Your task to perform on an android device: turn on translation in the chrome app Image 0: 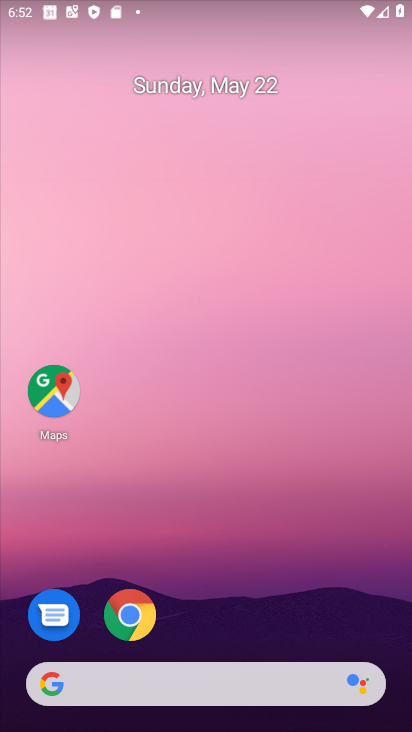
Step 0: click (129, 612)
Your task to perform on an android device: turn on translation in the chrome app Image 1: 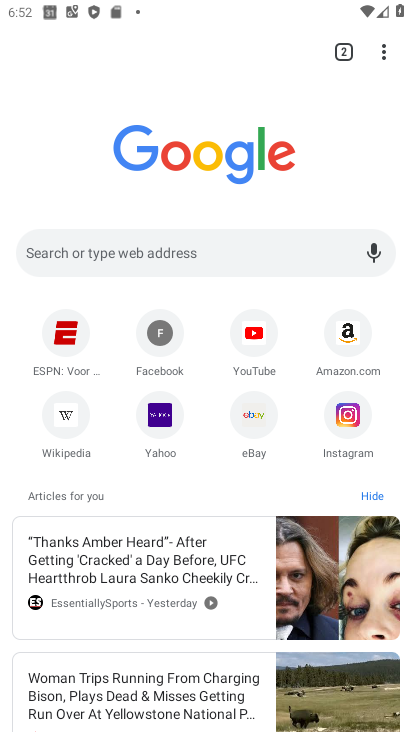
Step 1: click (382, 42)
Your task to perform on an android device: turn on translation in the chrome app Image 2: 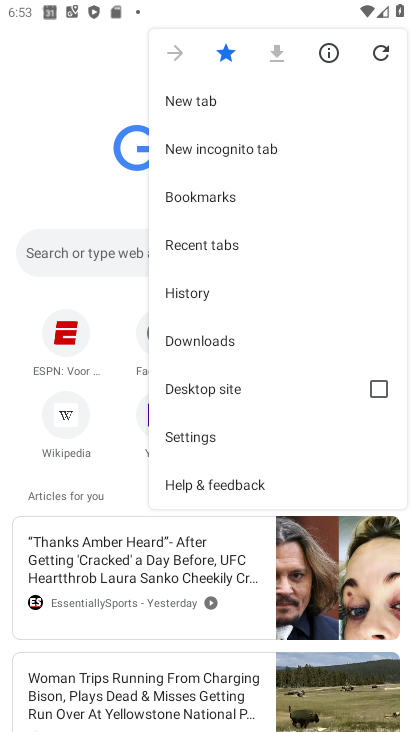
Step 2: click (202, 434)
Your task to perform on an android device: turn on translation in the chrome app Image 3: 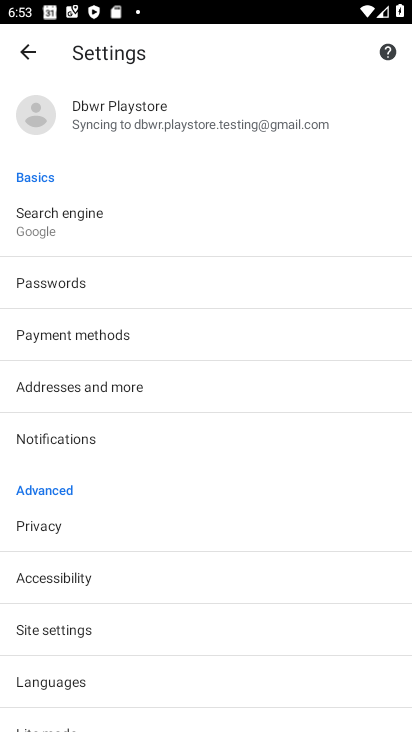
Step 3: click (53, 680)
Your task to perform on an android device: turn on translation in the chrome app Image 4: 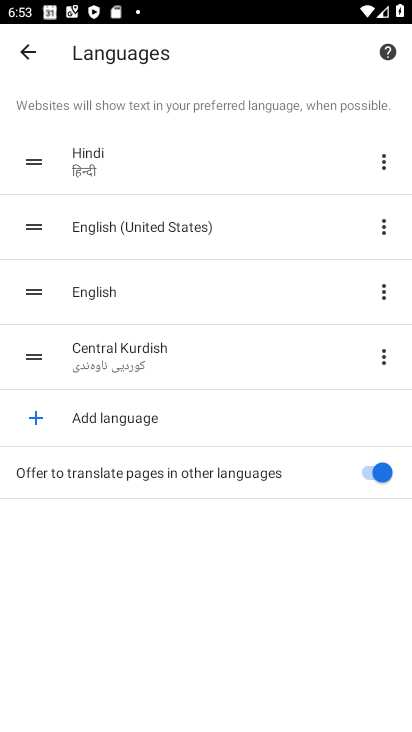
Step 4: task complete